Your task to perform on an android device: change the clock display to analog Image 0: 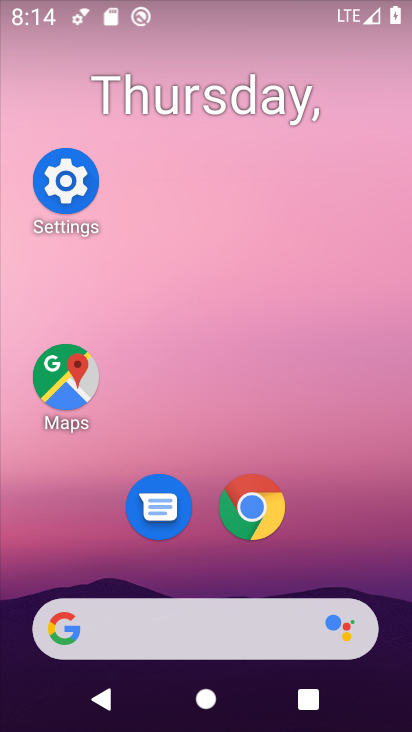
Step 0: drag from (308, 579) to (275, 117)
Your task to perform on an android device: change the clock display to analog Image 1: 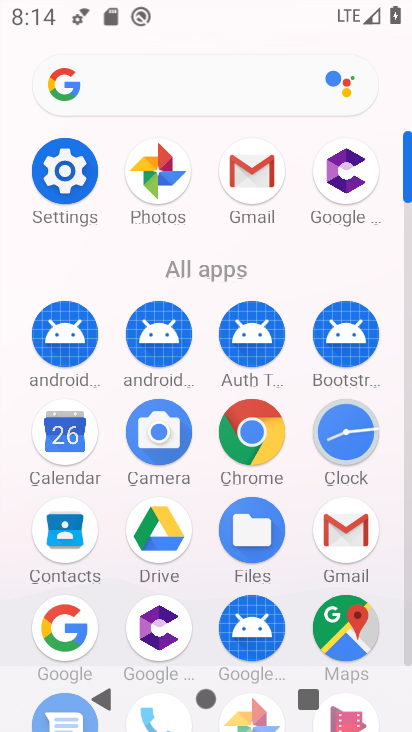
Step 1: drag from (344, 443) to (113, 167)
Your task to perform on an android device: change the clock display to analog Image 2: 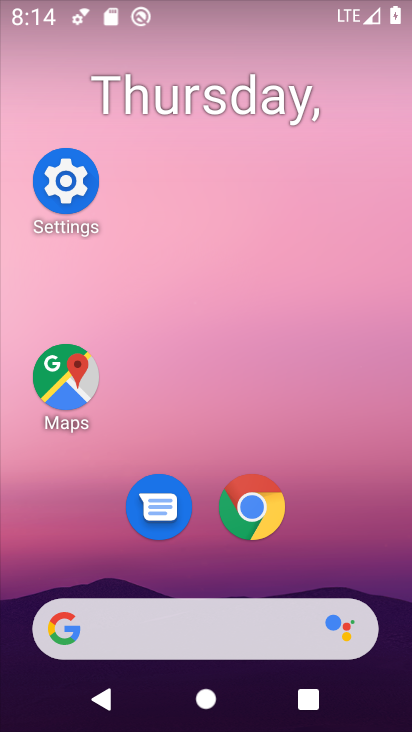
Step 2: drag from (267, 577) to (274, 501)
Your task to perform on an android device: change the clock display to analog Image 3: 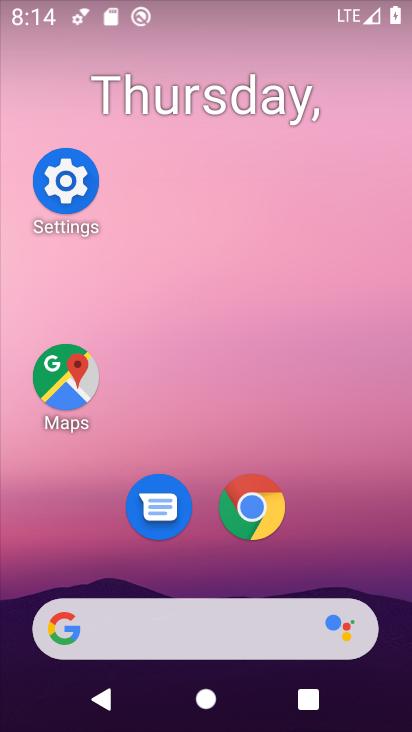
Step 3: drag from (317, 540) to (279, 122)
Your task to perform on an android device: change the clock display to analog Image 4: 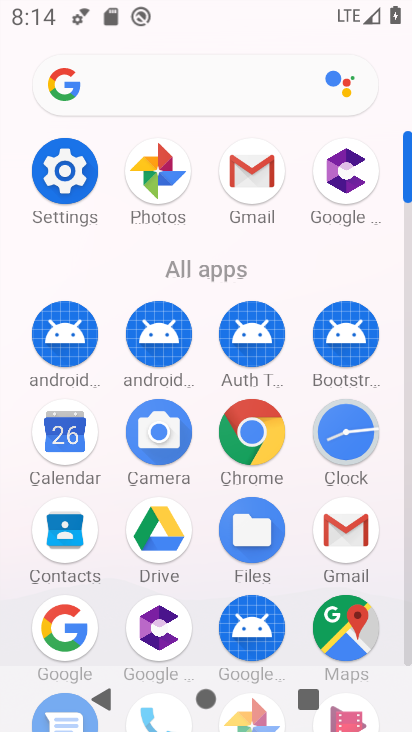
Step 4: drag from (342, 428) to (141, 107)
Your task to perform on an android device: change the clock display to analog Image 5: 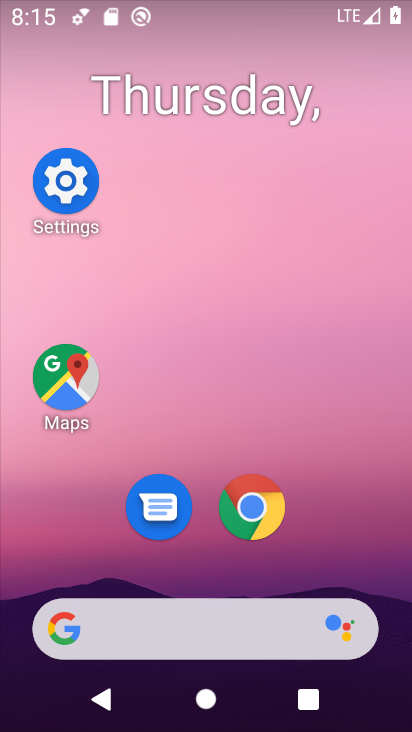
Step 5: drag from (253, 569) to (276, 151)
Your task to perform on an android device: change the clock display to analog Image 6: 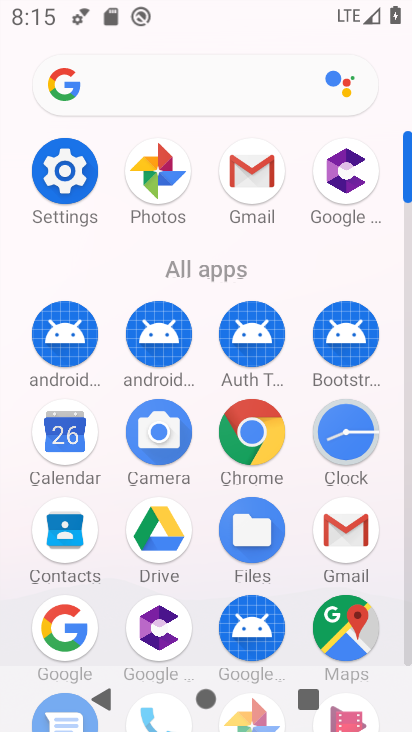
Step 6: drag from (335, 437) to (145, 213)
Your task to perform on an android device: change the clock display to analog Image 7: 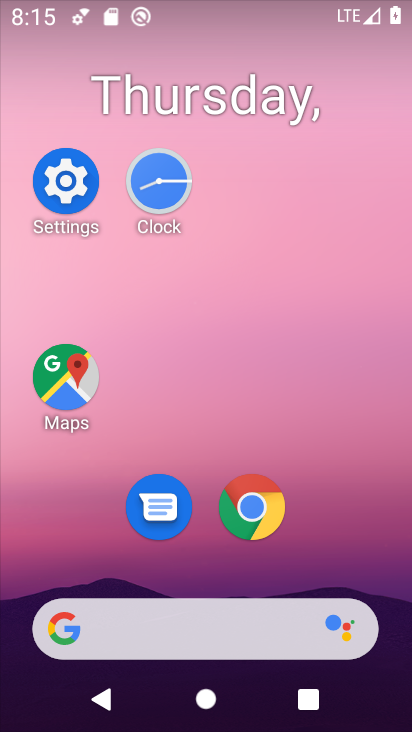
Step 7: click (168, 167)
Your task to perform on an android device: change the clock display to analog Image 8: 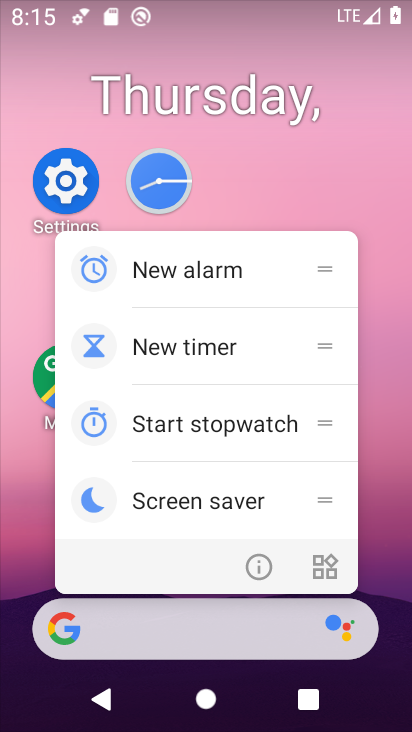
Step 8: click (168, 167)
Your task to perform on an android device: change the clock display to analog Image 9: 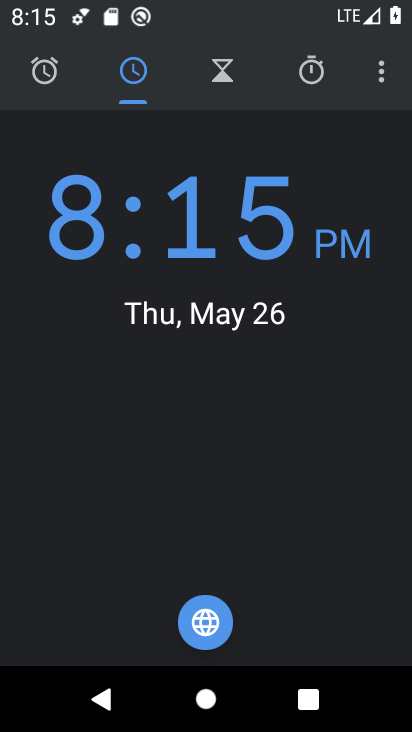
Step 9: click (379, 61)
Your task to perform on an android device: change the clock display to analog Image 10: 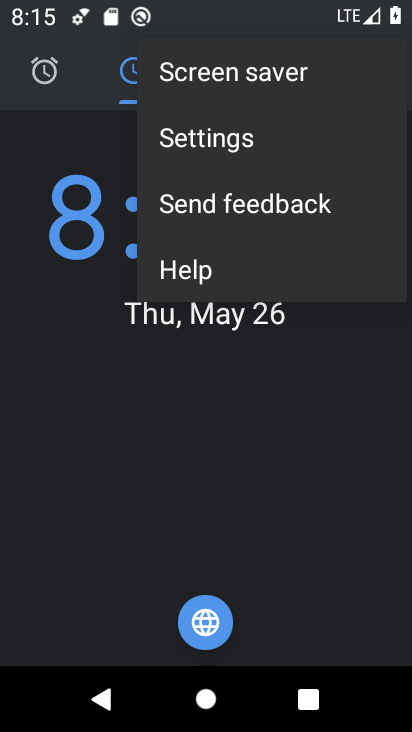
Step 10: click (238, 125)
Your task to perform on an android device: change the clock display to analog Image 11: 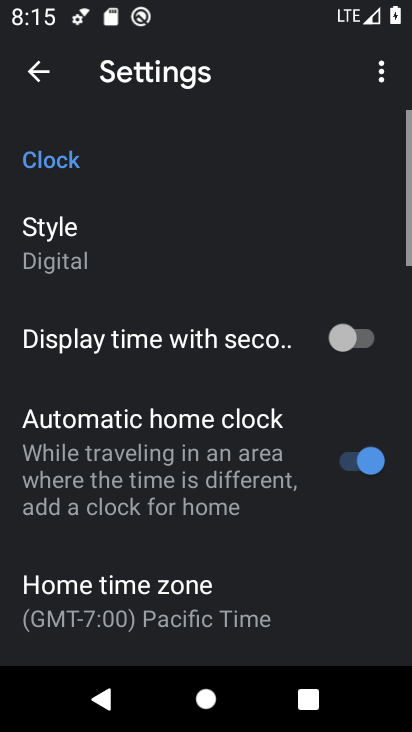
Step 11: click (93, 249)
Your task to perform on an android device: change the clock display to analog Image 12: 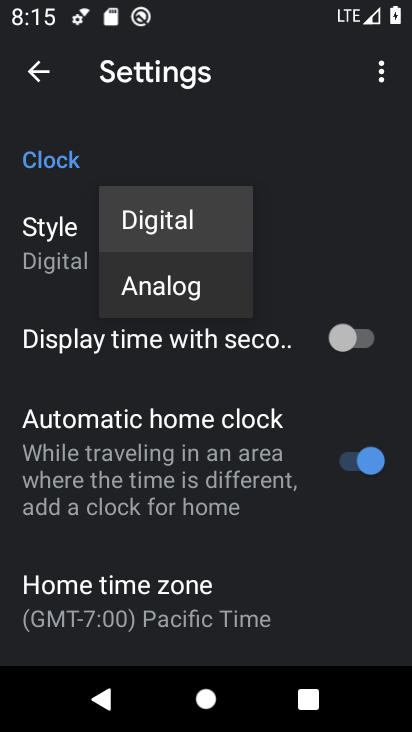
Step 12: click (181, 281)
Your task to perform on an android device: change the clock display to analog Image 13: 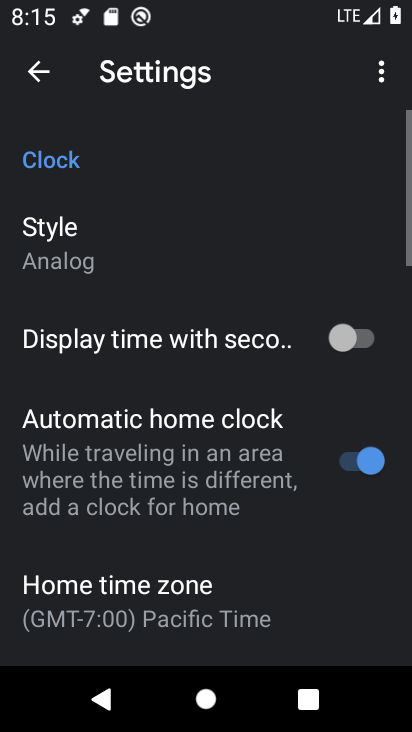
Step 13: task complete